Your task to perform on an android device: turn on the 12-hour format for clock Image 0: 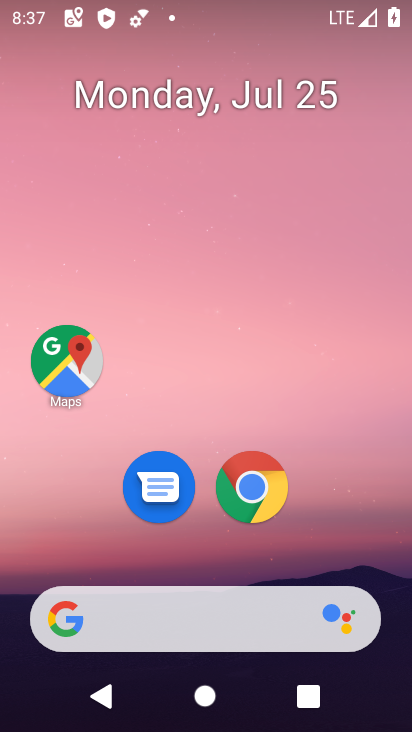
Step 0: drag from (104, 573) to (242, 5)
Your task to perform on an android device: turn on the 12-hour format for clock Image 1: 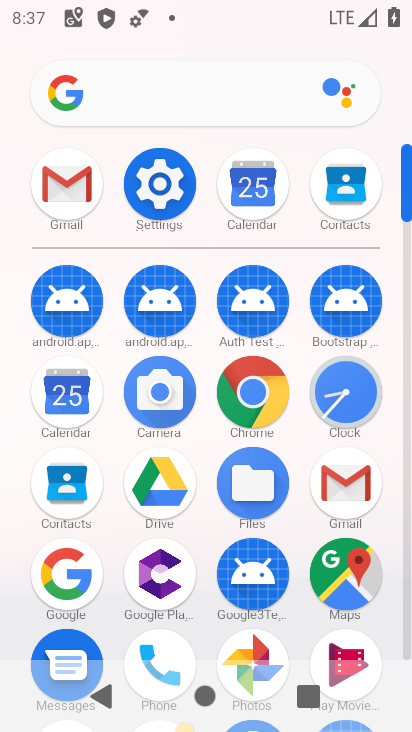
Step 1: click (346, 401)
Your task to perform on an android device: turn on the 12-hour format for clock Image 2: 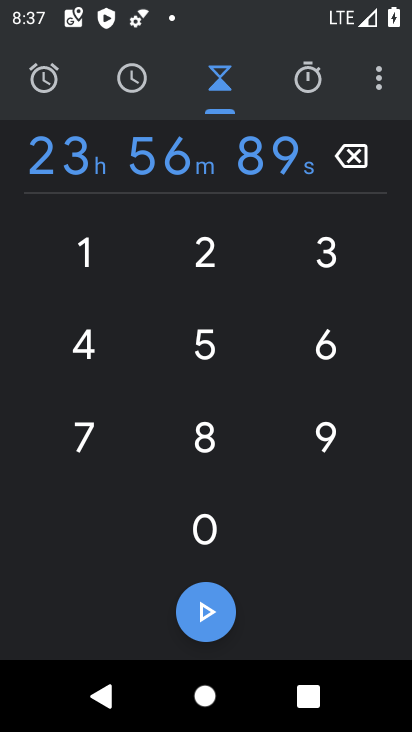
Step 2: click (382, 72)
Your task to perform on an android device: turn on the 12-hour format for clock Image 3: 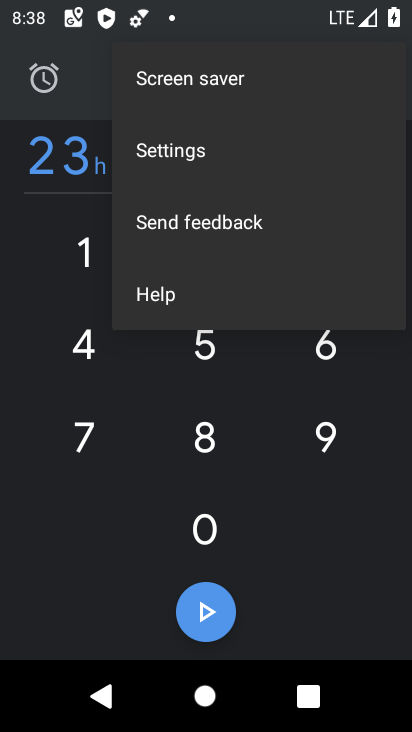
Step 3: click (215, 150)
Your task to perform on an android device: turn on the 12-hour format for clock Image 4: 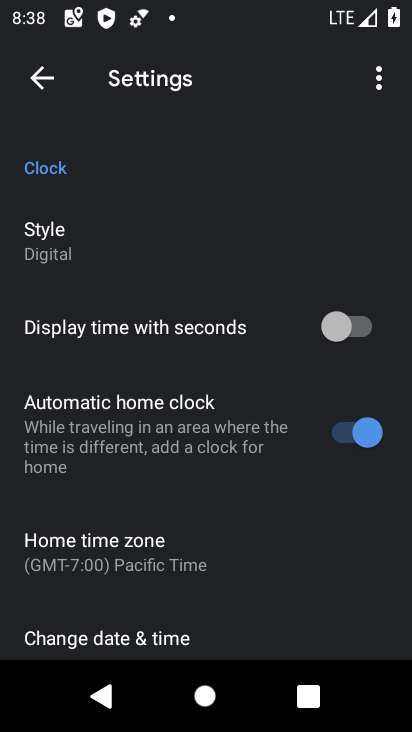
Step 4: drag from (147, 569) to (259, 145)
Your task to perform on an android device: turn on the 12-hour format for clock Image 5: 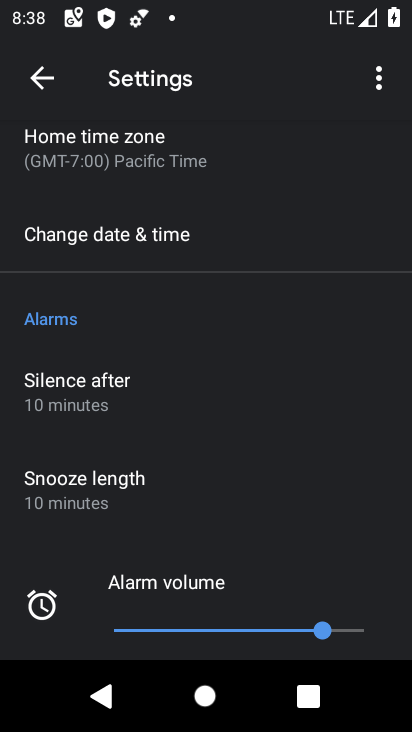
Step 5: click (148, 232)
Your task to perform on an android device: turn on the 12-hour format for clock Image 6: 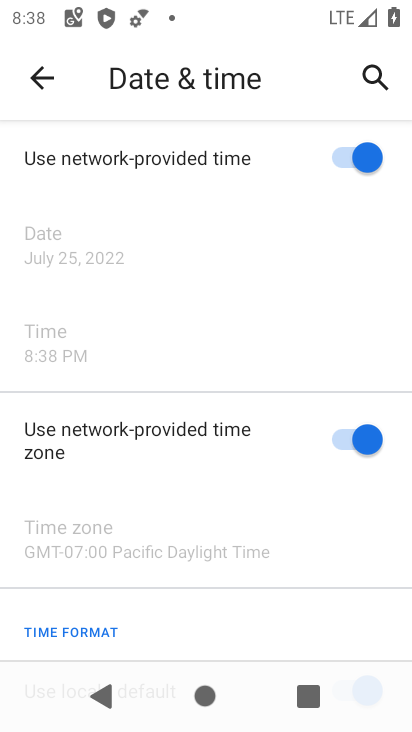
Step 6: task complete